Your task to perform on an android device: Turn on the flashlight Image 0: 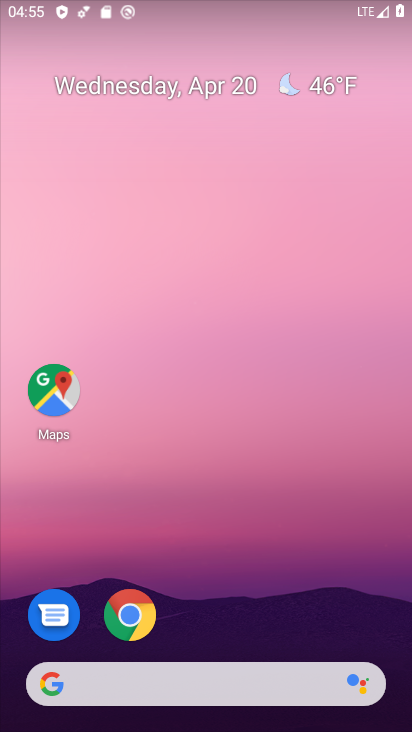
Step 0: drag from (225, 603) to (302, 84)
Your task to perform on an android device: Turn on the flashlight Image 1: 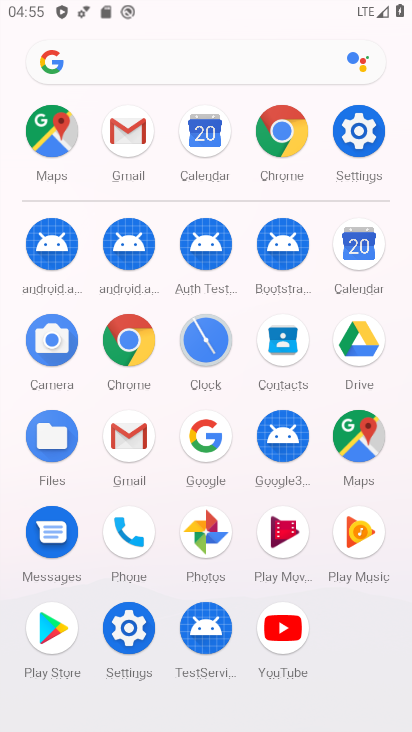
Step 1: click (365, 138)
Your task to perform on an android device: Turn on the flashlight Image 2: 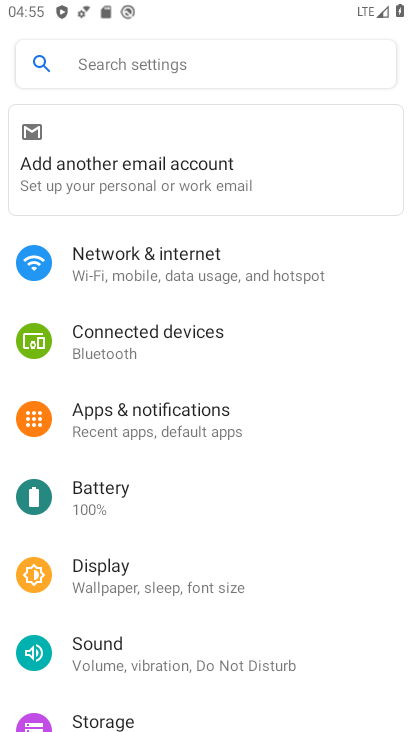
Step 2: click (187, 66)
Your task to perform on an android device: Turn on the flashlight Image 3: 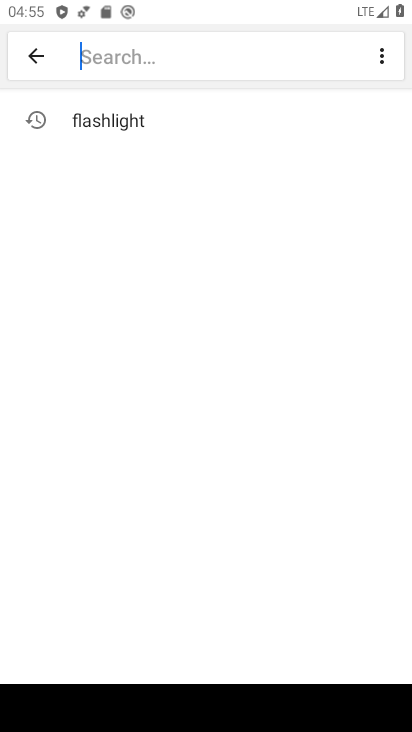
Step 3: type "flash"
Your task to perform on an android device: Turn on the flashlight Image 4: 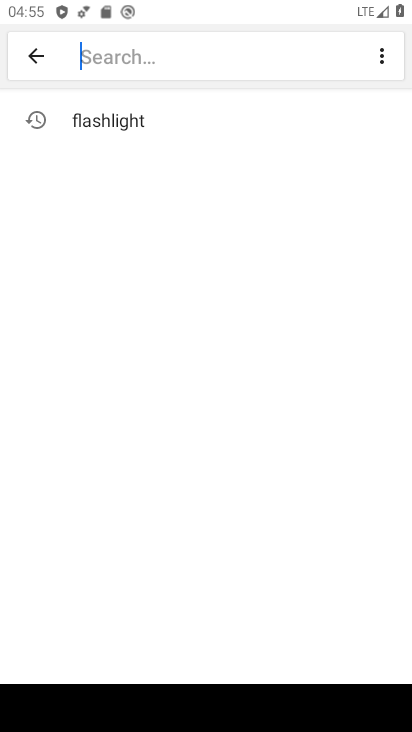
Step 4: click (133, 106)
Your task to perform on an android device: Turn on the flashlight Image 5: 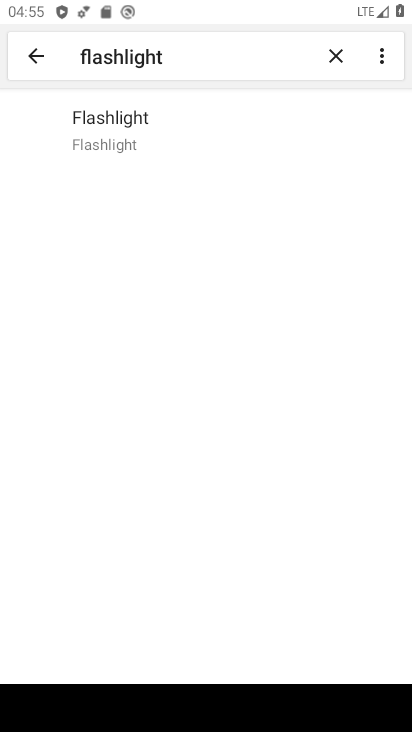
Step 5: task complete